Your task to perform on an android device: turn on wifi Image 0: 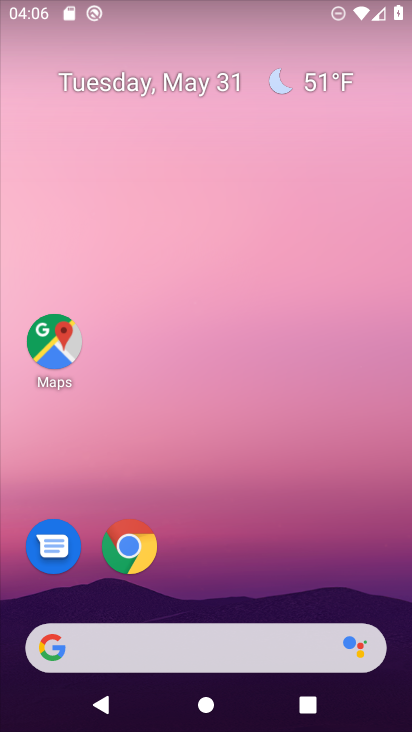
Step 0: drag from (208, 585) to (162, 118)
Your task to perform on an android device: turn on wifi Image 1: 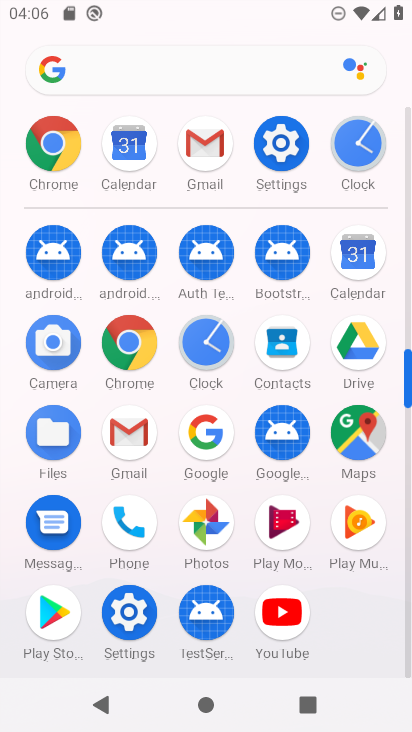
Step 1: click (273, 143)
Your task to perform on an android device: turn on wifi Image 2: 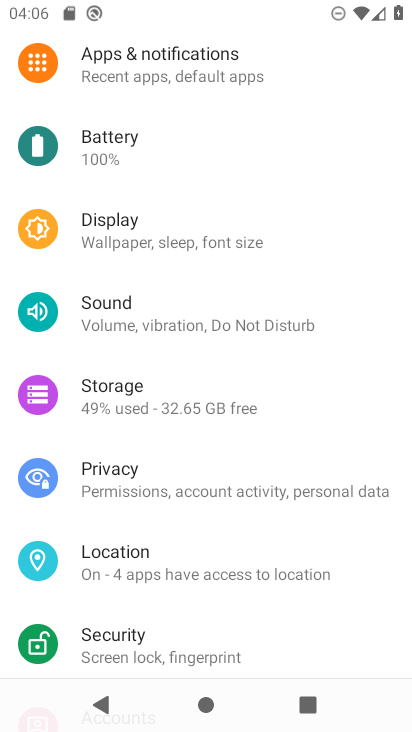
Step 2: drag from (112, 632) to (163, 415)
Your task to perform on an android device: turn on wifi Image 3: 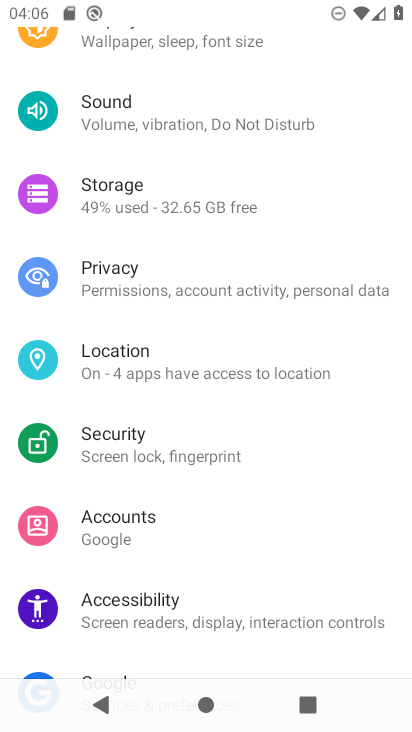
Step 3: drag from (202, 295) to (154, 503)
Your task to perform on an android device: turn on wifi Image 4: 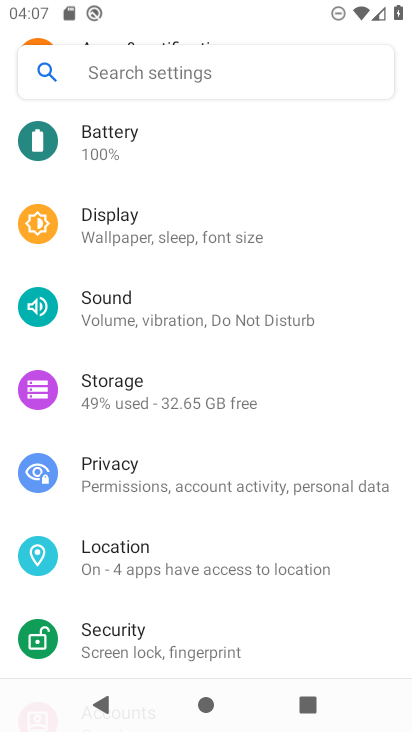
Step 4: drag from (185, 202) to (169, 505)
Your task to perform on an android device: turn on wifi Image 5: 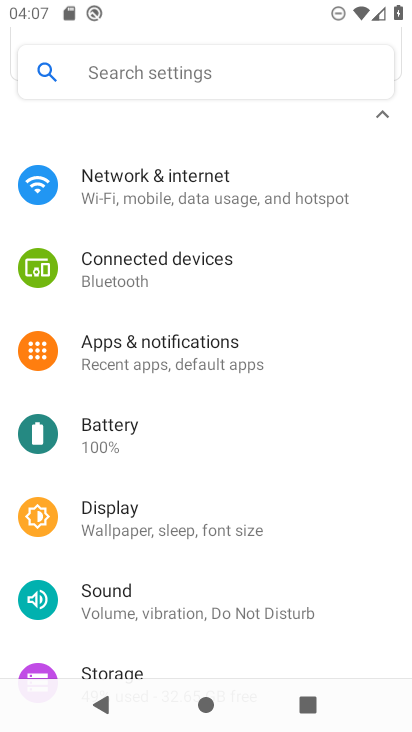
Step 5: click (110, 194)
Your task to perform on an android device: turn on wifi Image 6: 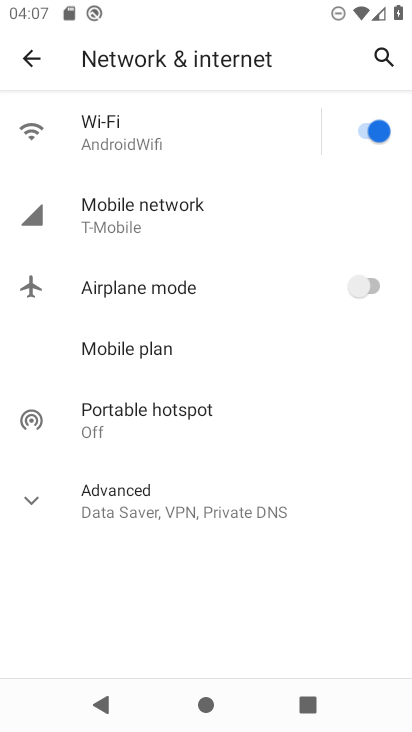
Step 6: task complete